Your task to perform on an android device: turn pop-ups on in chrome Image 0: 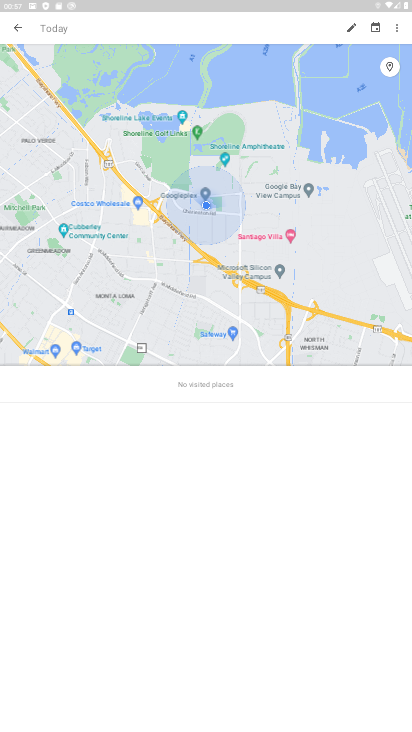
Step 0: press home button
Your task to perform on an android device: turn pop-ups on in chrome Image 1: 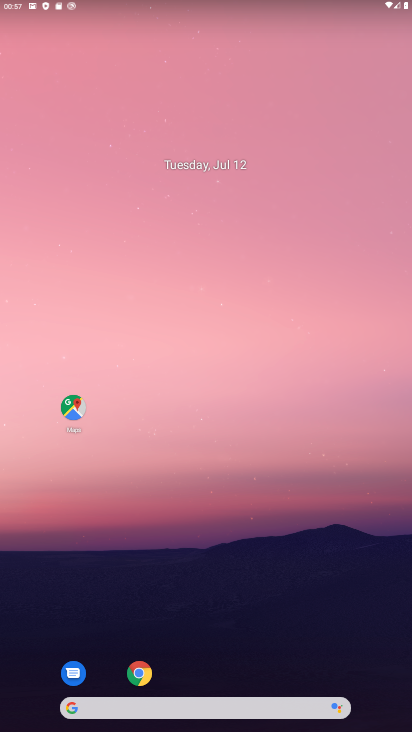
Step 1: click (137, 668)
Your task to perform on an android device: turn pop-ups on in chrome Image 2: 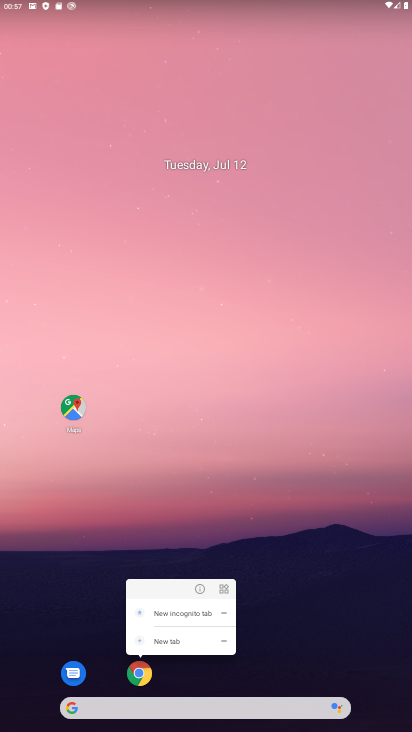
Step 2: click (135, 666)
Your task to perform on an android device: turn pop-ups on in chrome Image 3: 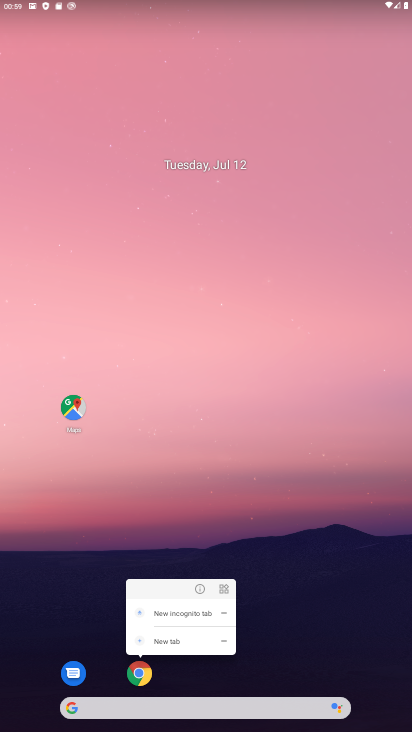
Step 3: click (138, 680)
Your task to perform on an android device: turn pop-ups on in chrome Image 4: 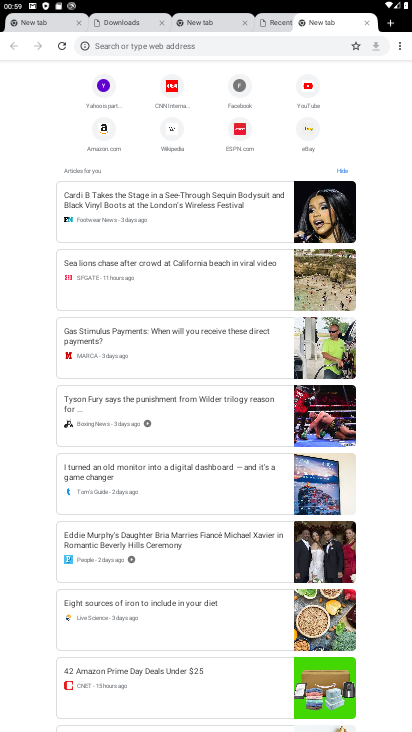
Step 4: drag from (402, 48) to (315, 215)
Your task to perform on an android device: turn pop-ups on in chrome Image 5: 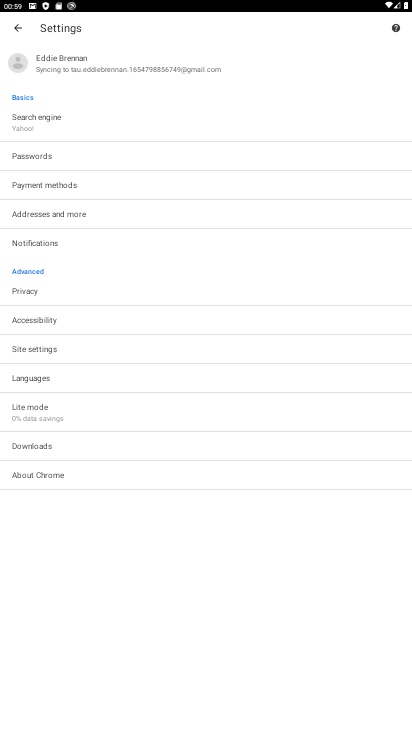
Step 5: click (37, 353)
Your task to perform on an android device: turn pop-ups on in chrome Image 6: 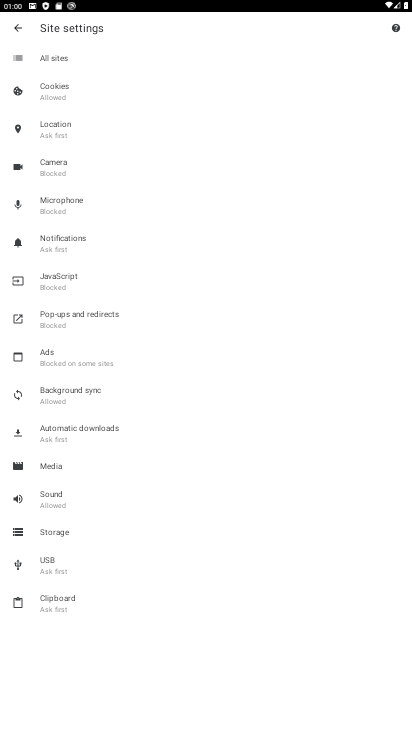
Step 6: click (47, 319)
Your task to perform on an android device: turn pop-ups on in chrome Image 7: 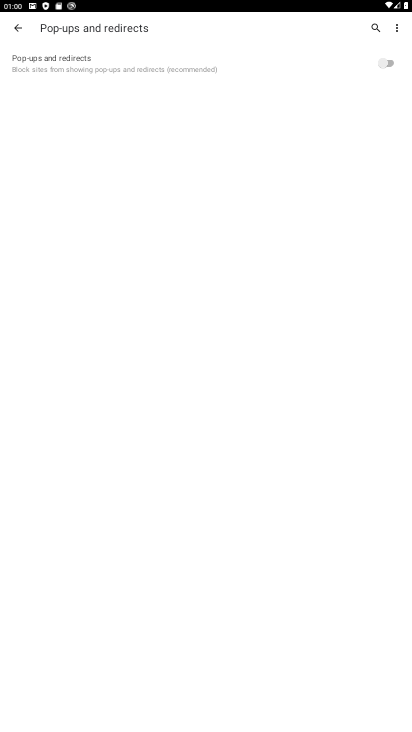
Step 7: click (393, 55)
Your task to perform on an android device: turn pop-ups on in chrome Image 8: 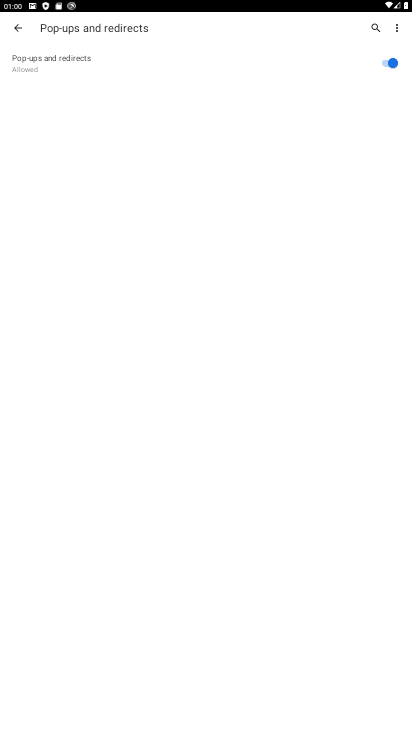
Step 8: task complete